Your task to perform on an android device: change the clock display to analog Image 0: 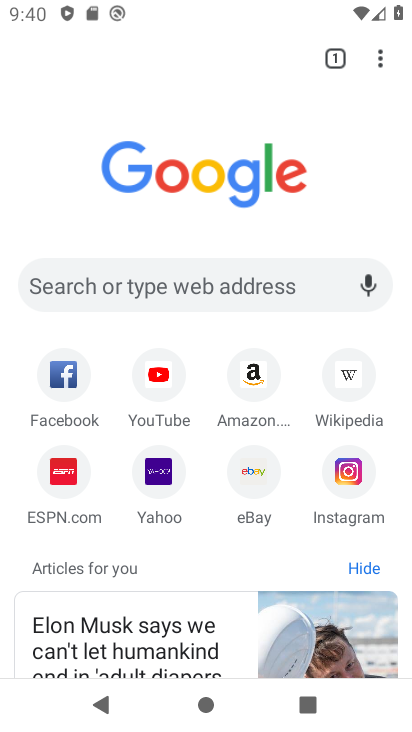
Step 0: press home button
Your task to perform on an android device: change the clock display to analog Image 1: 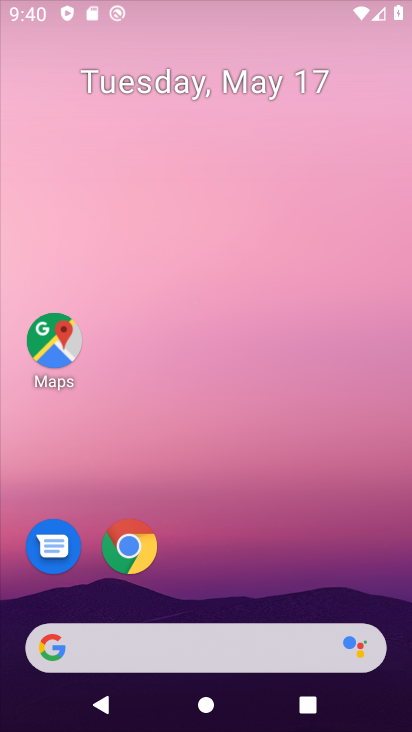
Step 1: drag from (220, 547) to (197, 209)
Your task to perform on an android device: change the clock display to analog Image 2: 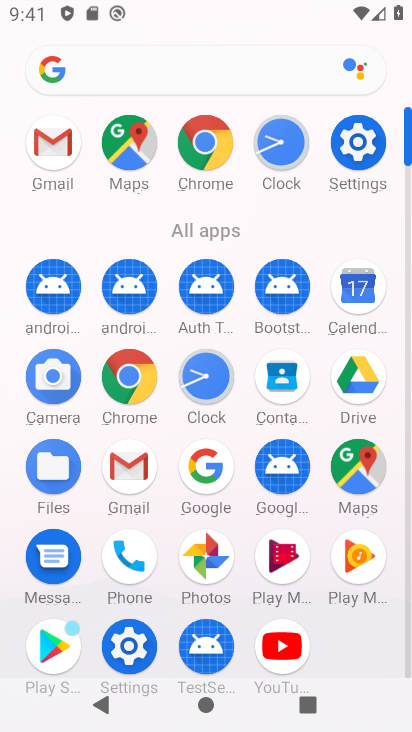
Step 2: click (214, 377)
Your task to perform on an android device: change the clock display to analog Image 3: 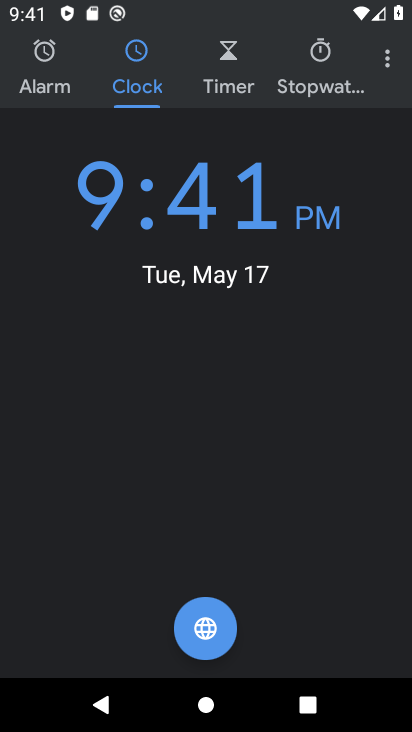
Step 3: click (376, 57)
Your task to perform on an android device: change the clock display to analog Image 4: 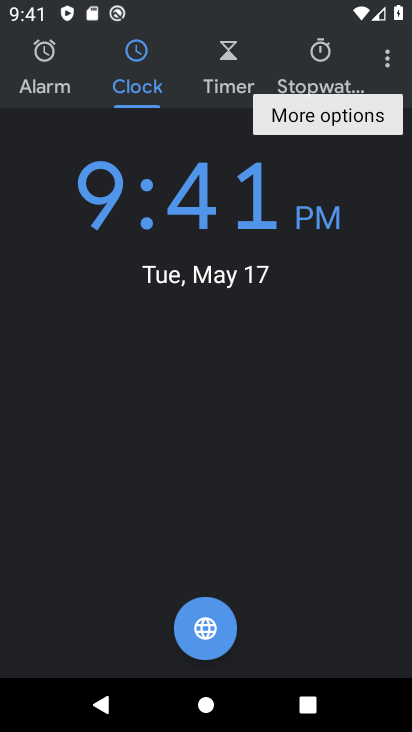
Step 4: click (391, 53)
Your task to perform on an android device: change the clock display to analog Image 5: 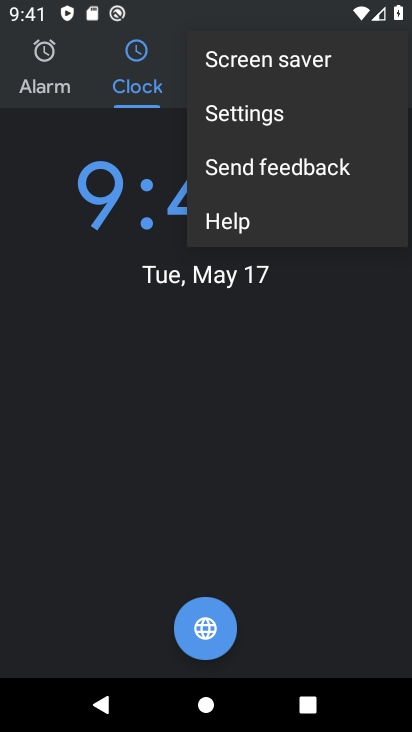
Step 5: click (225, 105)
Your task to perform on an android device: change the clock display to analog Image 6: 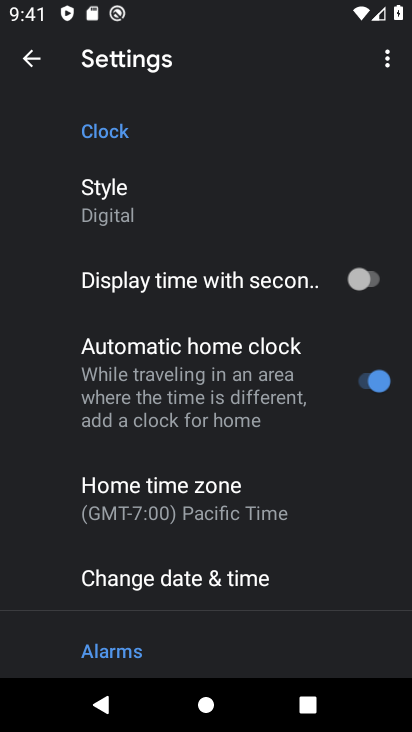
Step 6: click (128, 192)
Your task to perform on an android device: change the clock display to analog Image 7: 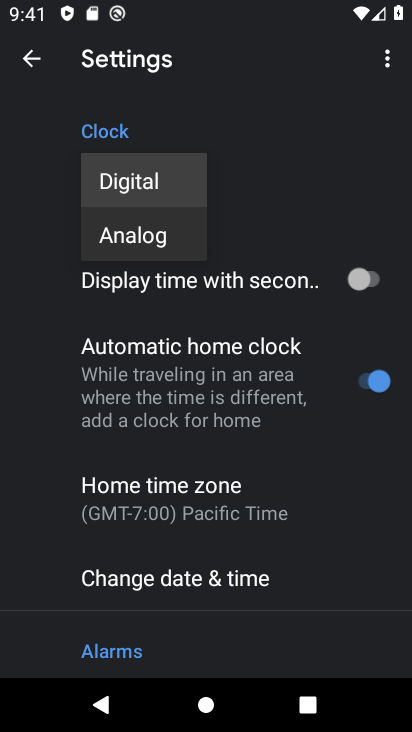
Step 7: click (129, 243)
Your task to perform on an android device: change the clock display to analog Image 8: 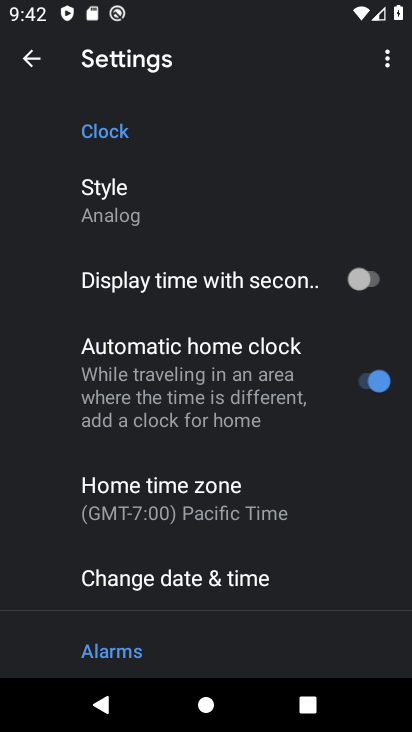
Step 8: task complete